Your task to perform on an android device: Is it going to rain today? Image 0: 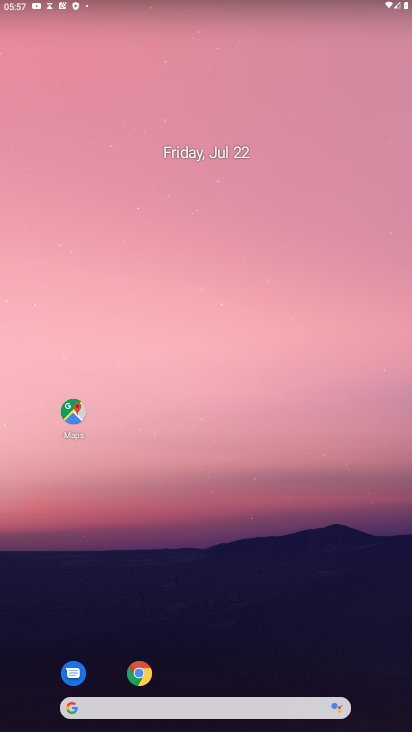
Step 0: press home button
Your task to perform on an android device: Is it going to rain today? Image 1: 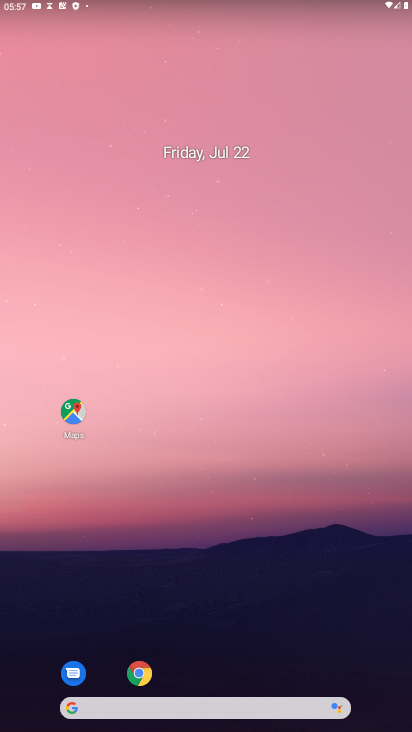
Step 1: click (69, 702)
Your task to perform on an android device: Is it going to rain today? Image 2: 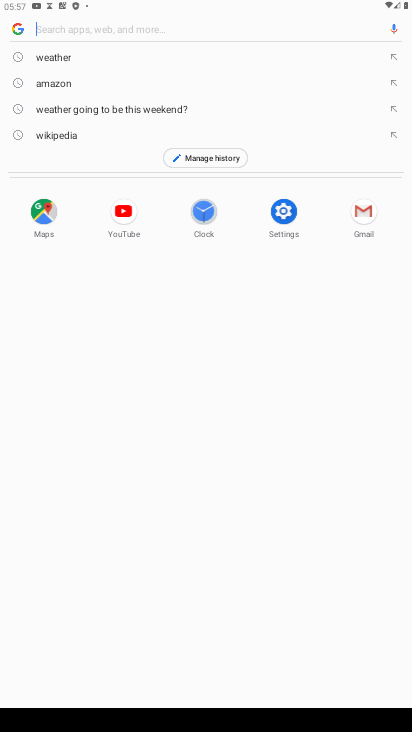
Step 2: type " rain today?"
Your task to perform on an android device: Is it going to rain today? Image 3: 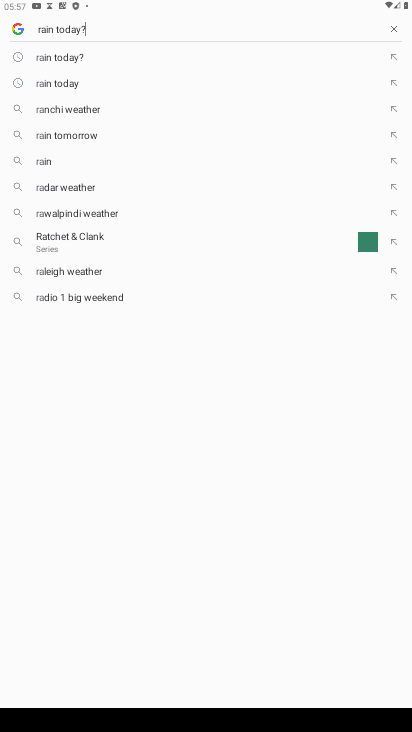
Step 3: press enter
Your task to perform on an android device: Is it going to rain today? Image 4: 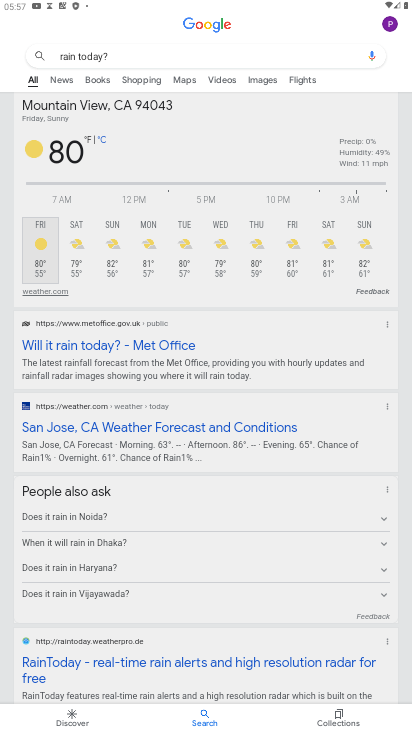
Step 4: task complete